Your task to perform on an android device: install app "Google Translate" Image 0: 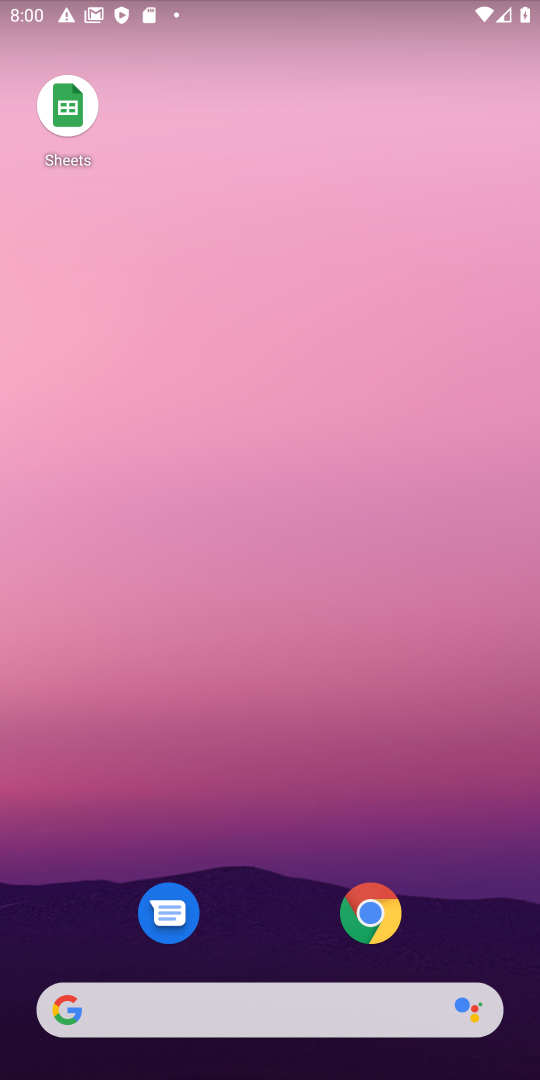
Step 0: drag from (279, 940) to (251, 115)
Your task to perform on an android device: install app "Google Translate" Image 1: 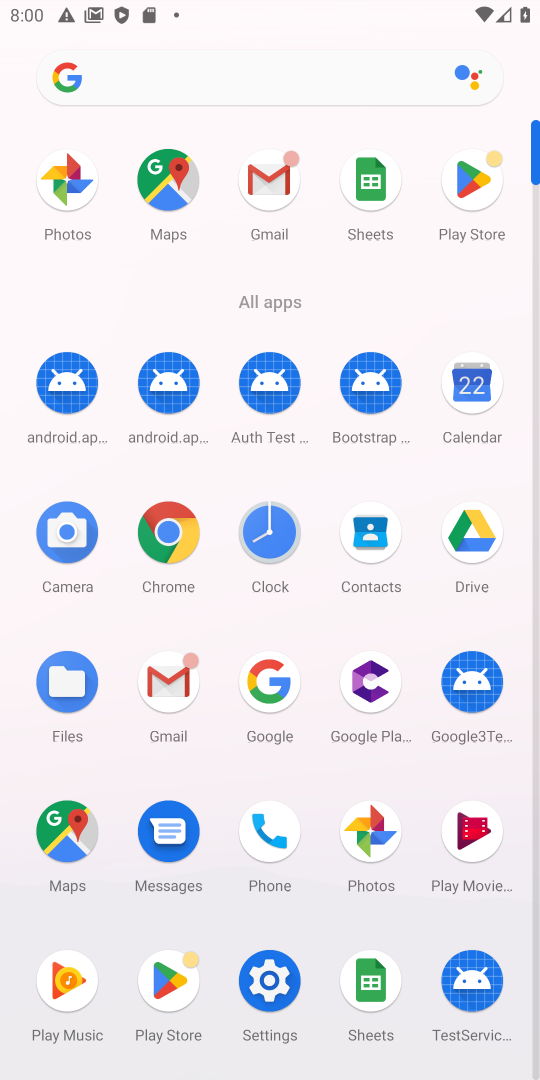
Step 1: click (459, 191)
Your task to perform on an android device: install app "Google Translate" Image 2: 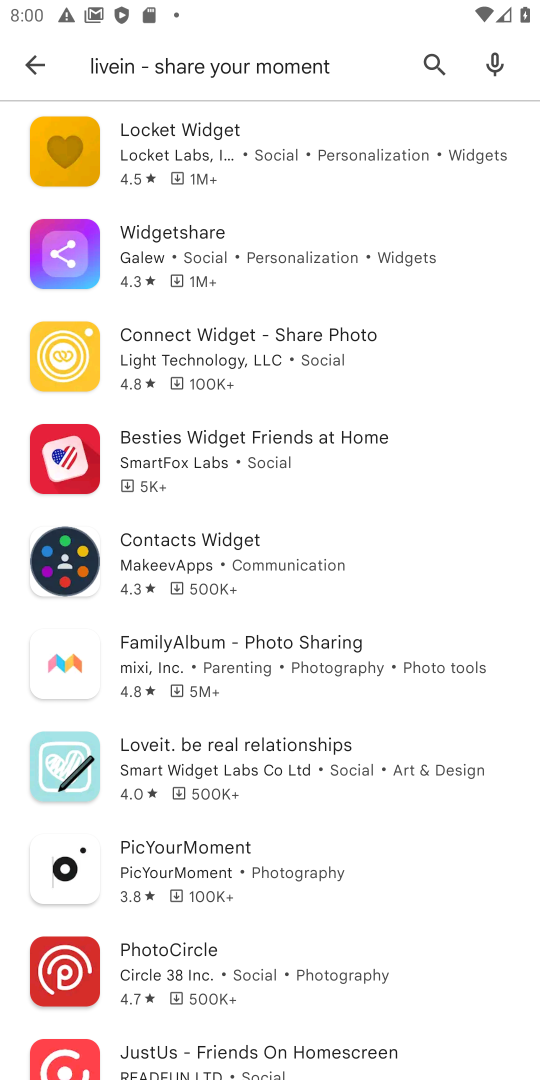
Step 2: click (437, 72)
Your task to perform on an android device: install app "Google Translate" Image 3: 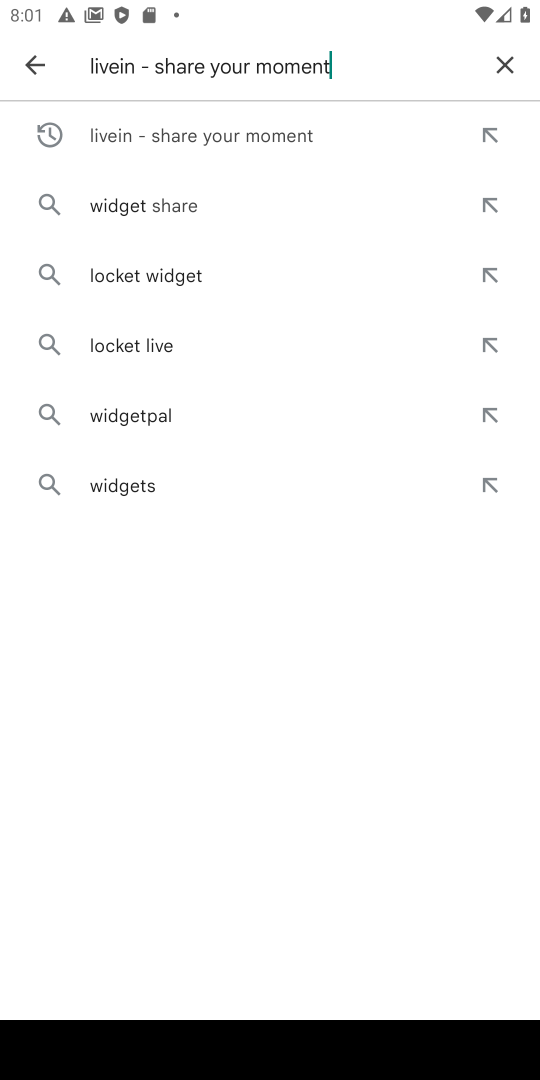
Step 3: click (504, 71)
Your task to perform on an android device: install app "Google Translate" Image 4: 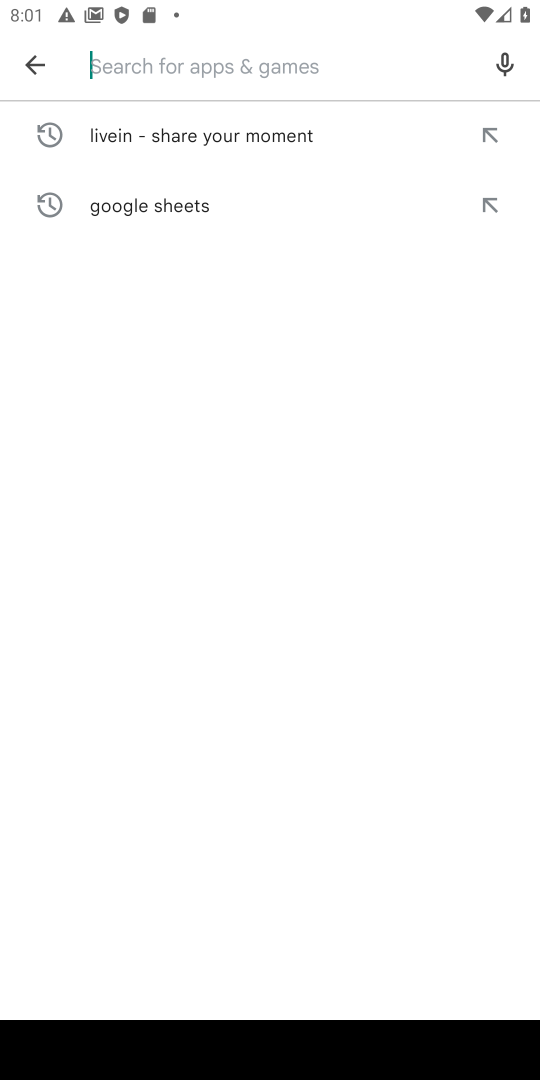
Step 4: type "google translate"
Your task to perform on an android device: install app "Google Translate" Image 5: 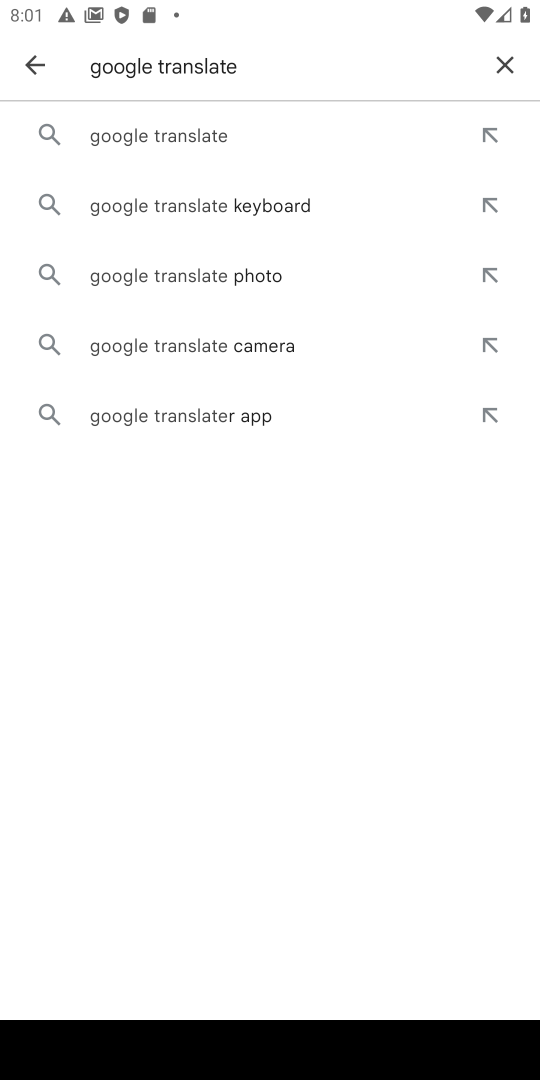
Step 5: click (144, 139)
Your task to perform on an android device: install app "Google Translate" Image 6: 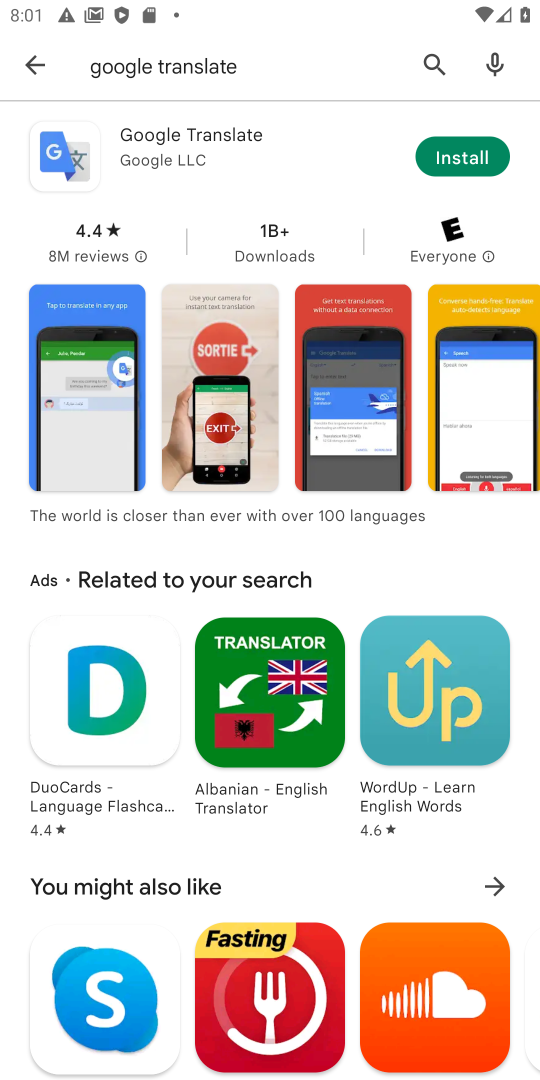
Step 6: click (439, 155)
Your task to perform on an android device: install app "Google Translate" Image 7: 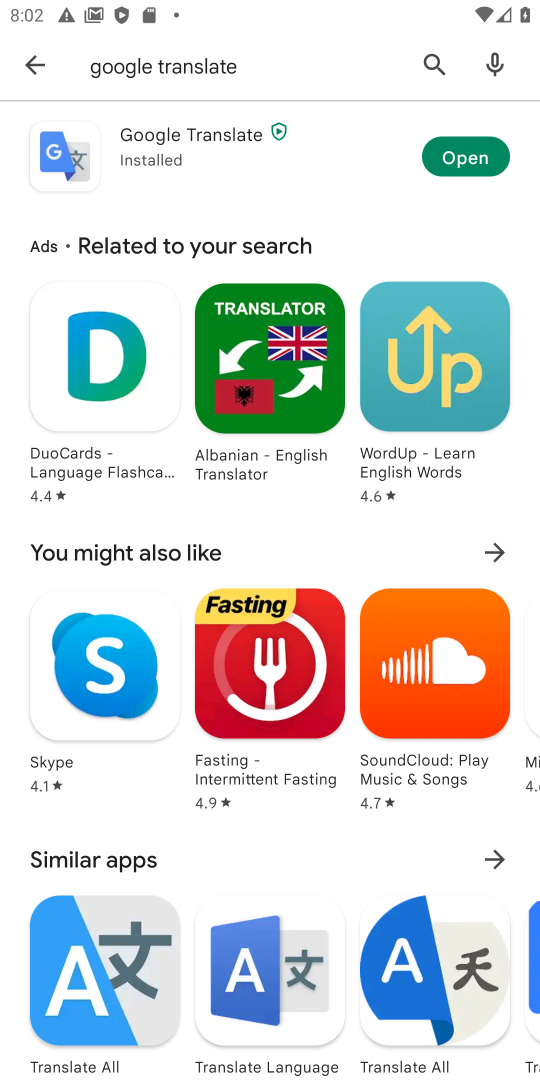
Step 7: task complete